Your task to perform on an android device: Search for vintage wall art on Etsy. Image 0: 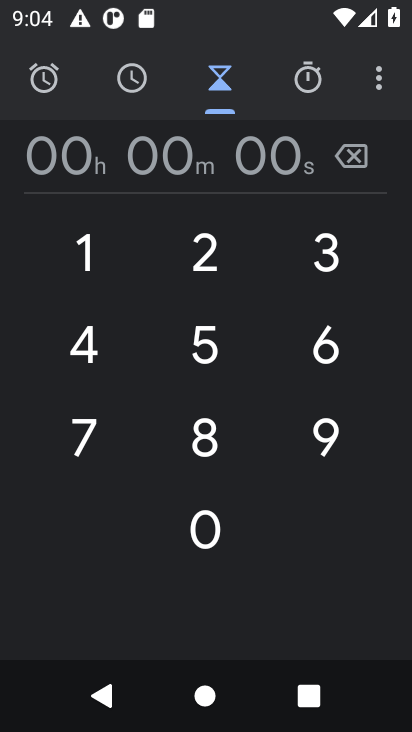
Step 0: task complete